Your task to perform on an android device: Go to Wikipedia Image 0: 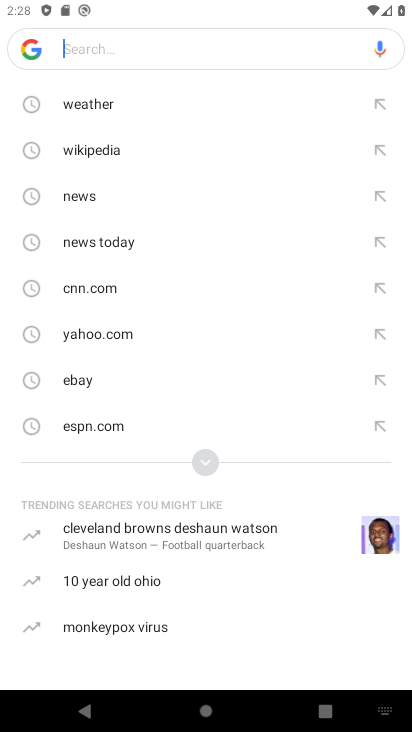
Step 0: press home button
Your task to perform on an android device: Go to Wikipedia Image 1: 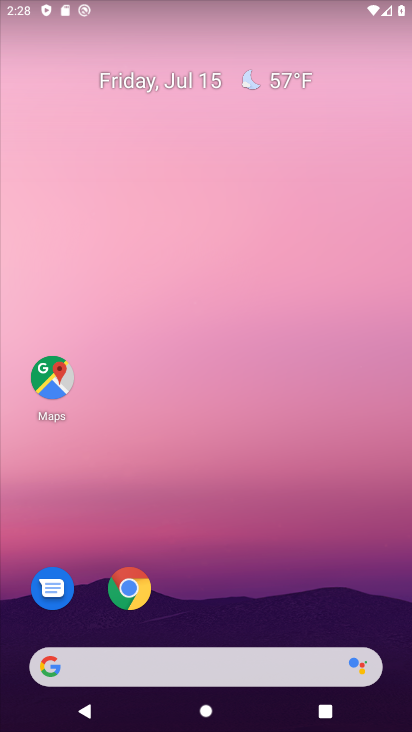
Step 1: click (132, 587)
Your task to perform on an android device: Go to Wikipedia Image 2: 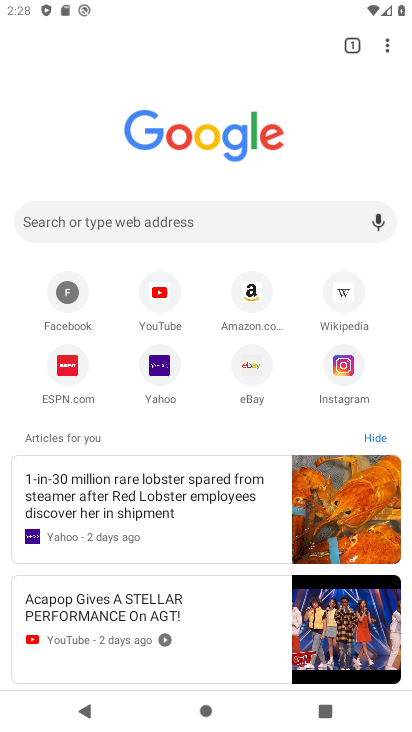
Step 2: click (345, 289)
Your task to perform on an android device: Go to Wikipedia Image 3: 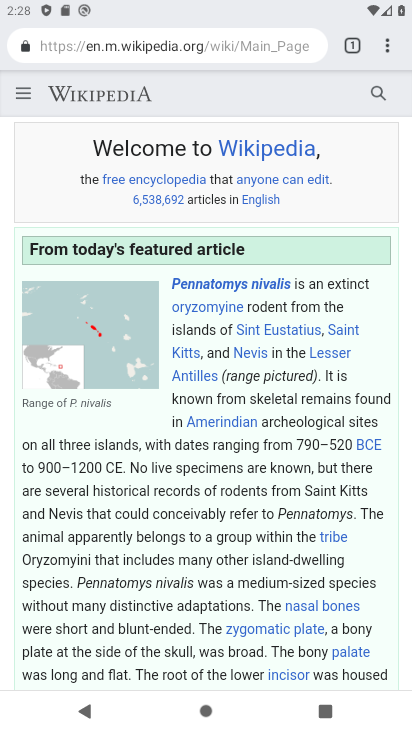
Step 3: task complete